Your task to perform on an android device: Open Youtube and go to "Your channel" Image 0: 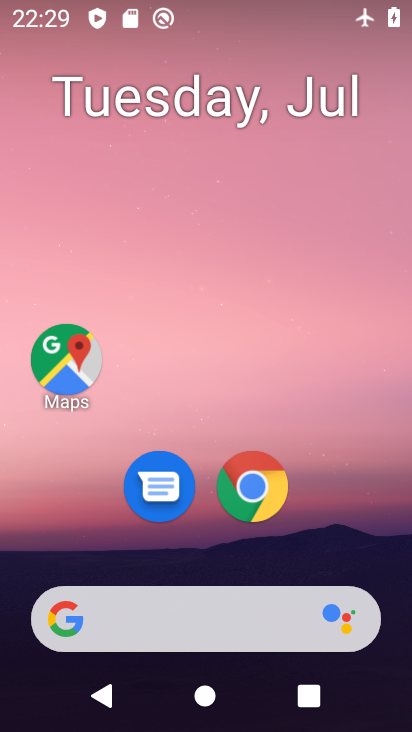
Step 0: press home button
Your task to perform on an android device: Open Youtube and go to "Your channel" Image 1: 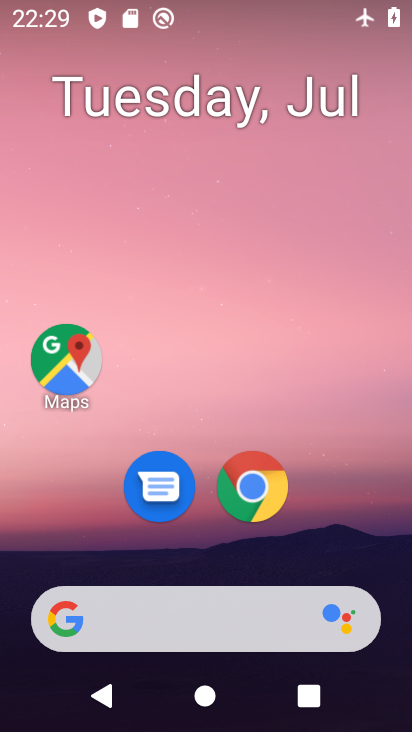
Step 1: drag from (366, 529) to (369, 159)
Your task to perform on an android device: Open Youtube and go to "Your channel" Image 2: 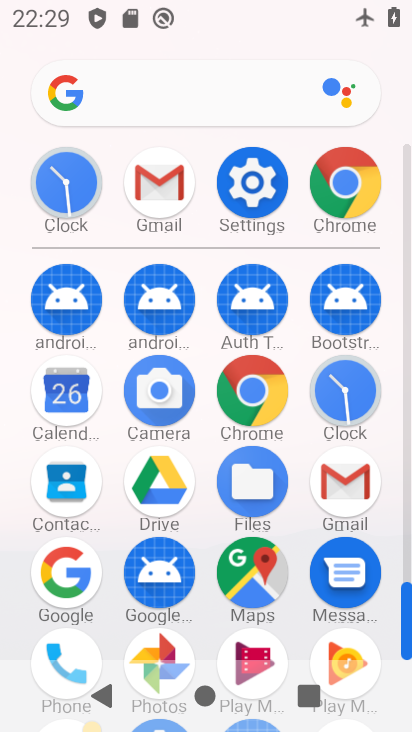
Step 2: drag from (389, 454) to (387, 289)
Your task to perform on an android device: Open Youtube and go to "Your channel" Image 3: 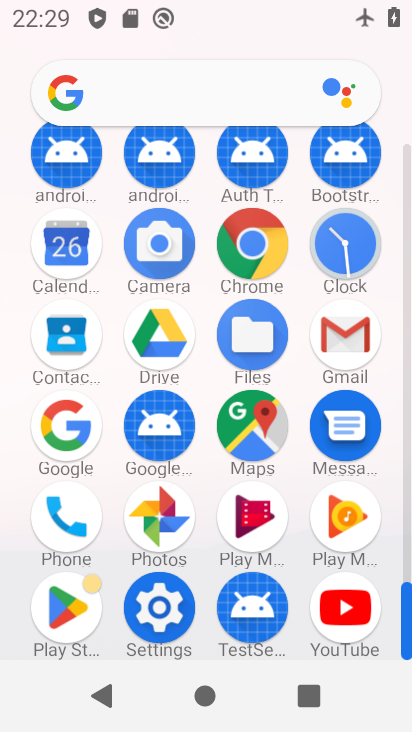
Step 3: click (344, 613)
Your task to perform on an android device: Open Youtube and go to "Your channel" Image 4: 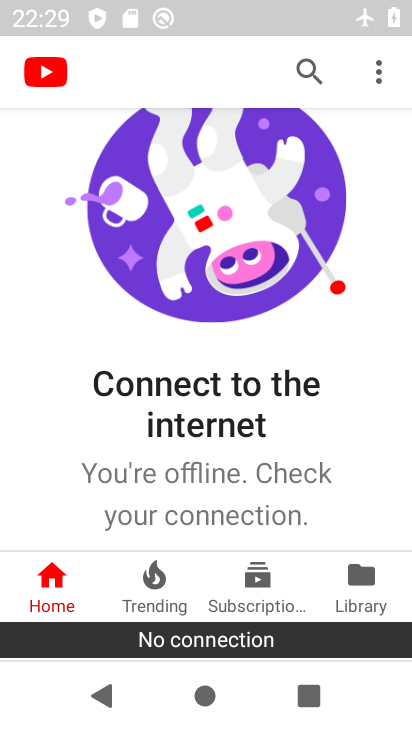
Step 4: click (378, 70)
Your task to perform on an android device: Open Youtube and go to "Your channel" Image 5: 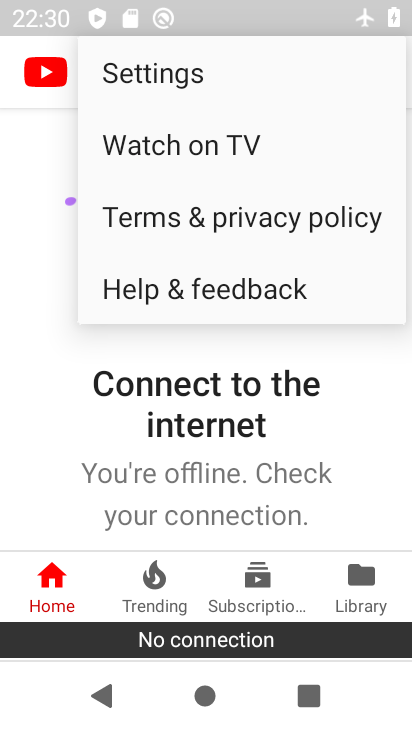
Step 5: task complete